Your task to perform on an android device: Open settings Image 0: 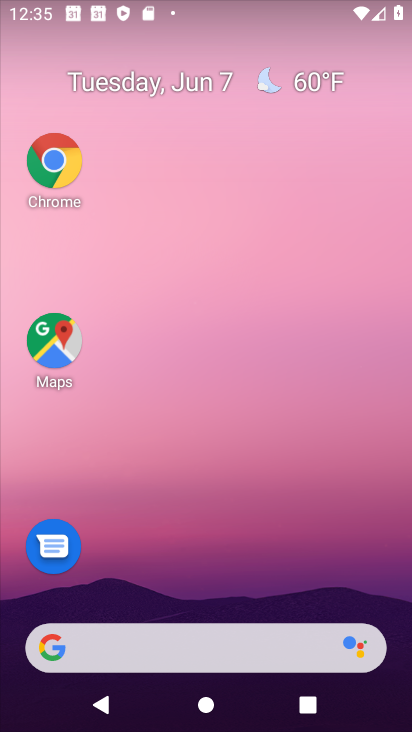
Step 0: drag from (244, 342) to (350, 50)
Your task to perform on an android device: Open settings Image 1: 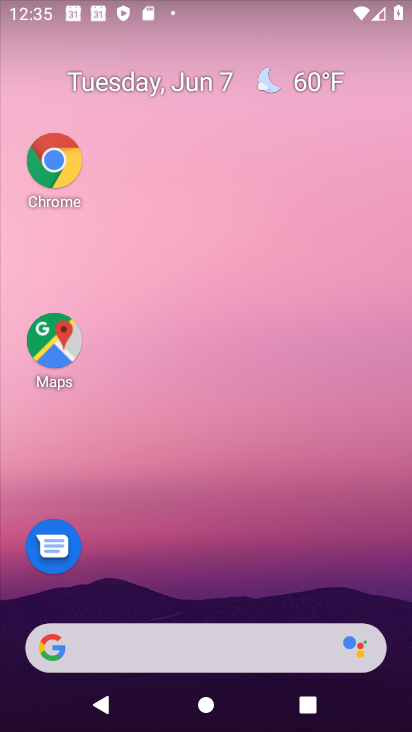
Step 1: drag from (255, 473) to (359, 56)
Your task to perform on an android device: Open settings Image 2: 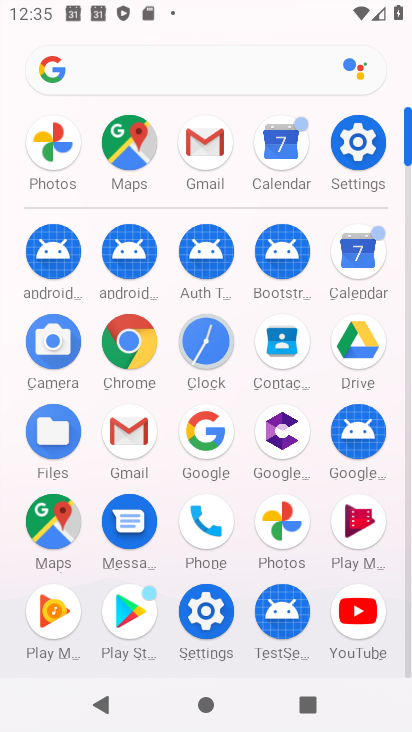
Step 2: click (357, 142)
Your task to perform on an android device: Open settings Image 3: 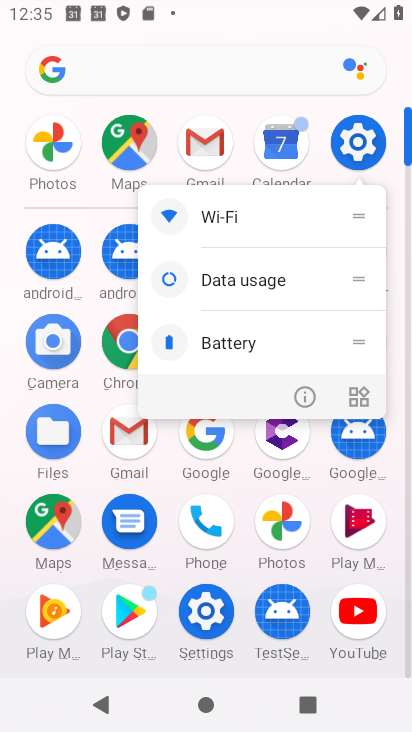
Step 3: click (307, 405)
Your task to perform on an android device: Open settings Image 4: 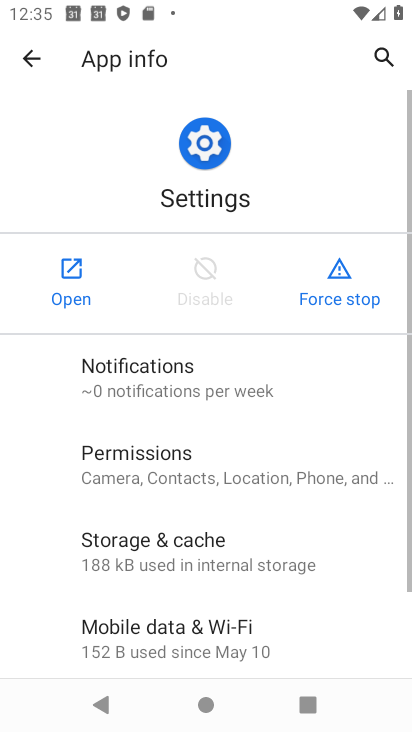
Step 4: click (57, 282)
Your task to perform on an android device: Open settings Image 5: 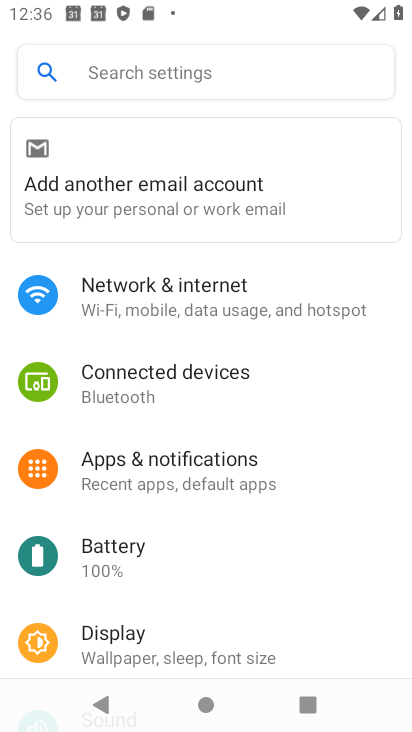
Step 5: task complete